Your task to perform on an android device: check the backup settings in the google photos Image 0: 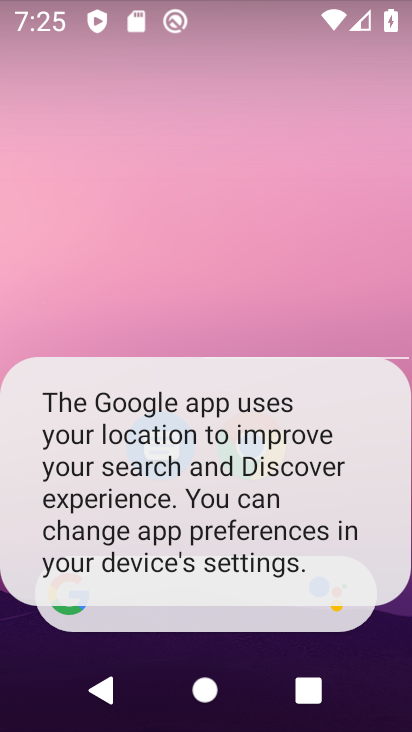
Step 0: press home button
Your task to perform on an android device: check the backup settings in the google photos Image 1: 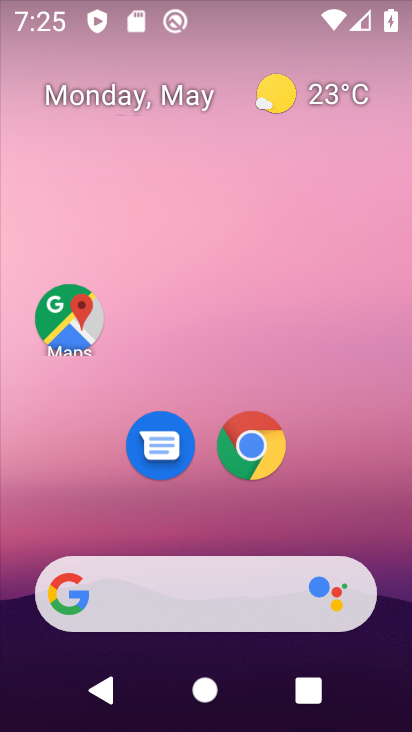
Step 1: drag from (191, 584) to (321, 126)
Your task to perform on an android device: check the backup settings in the google photos Image 2: 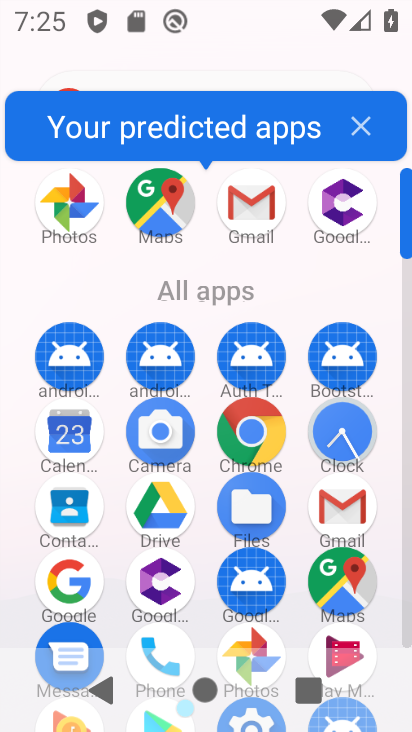
Step 2: click (73, 212)
Your task to perform on an android device: check the backup settings in the google photos Image 3: 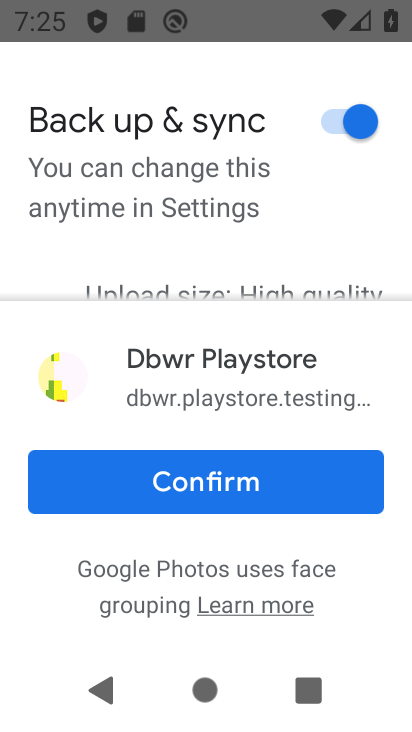
Step 3: click (181, 480)
Your task to perform on an android device: check the backup settings in the google photos Image 4: 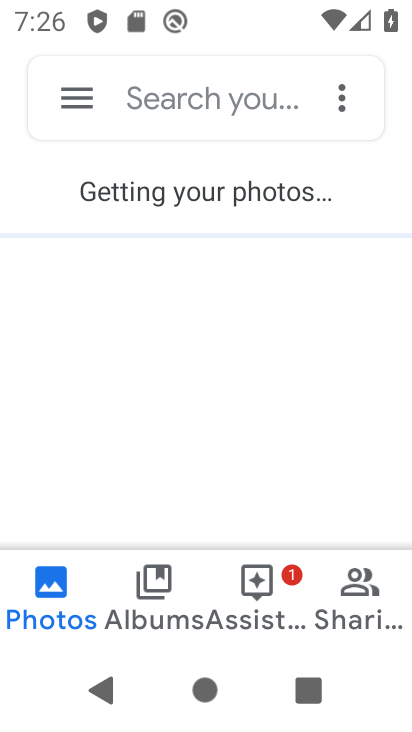
Step 4: click (70, 103)
Your task to perform on an android device: check the backup settings in the google photos Image 5: 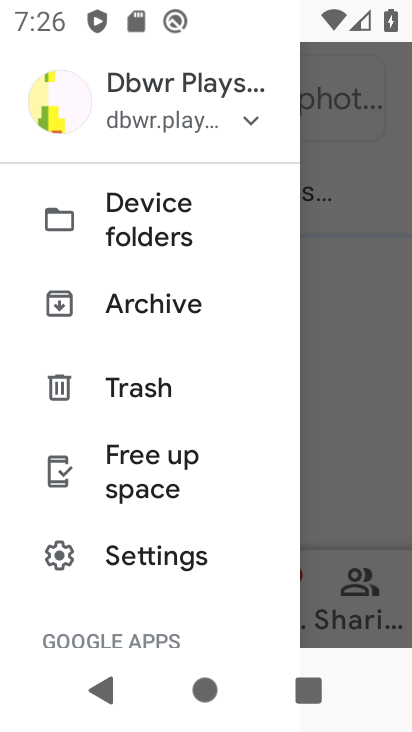
Step 5: click (173, 562)
Your task to perform on an android device: check the backup settings in the google photos Image 6: 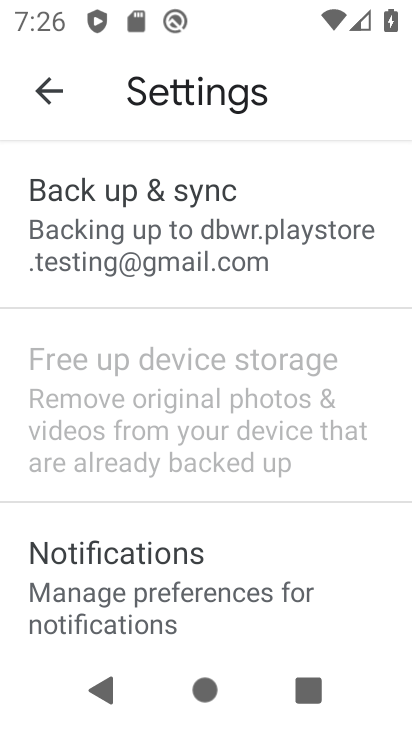
Step 6: click (207, 205)
Your task to perform on an android device: check the backup settings in the google photos Image 7: 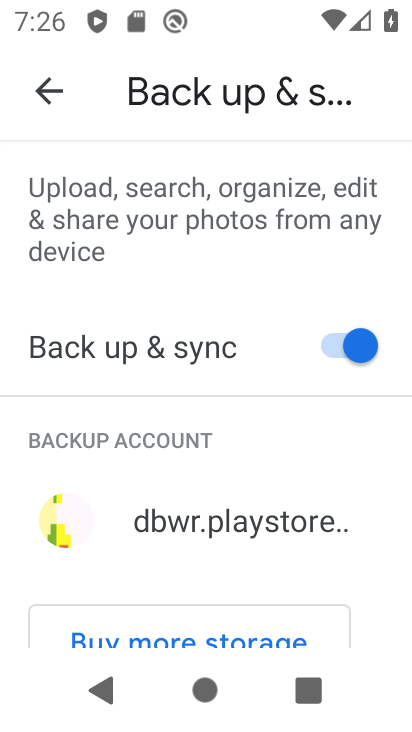
Step 7: task complete